Your task to perform on an android device: stop showing notifications on the lock screen Image 0: 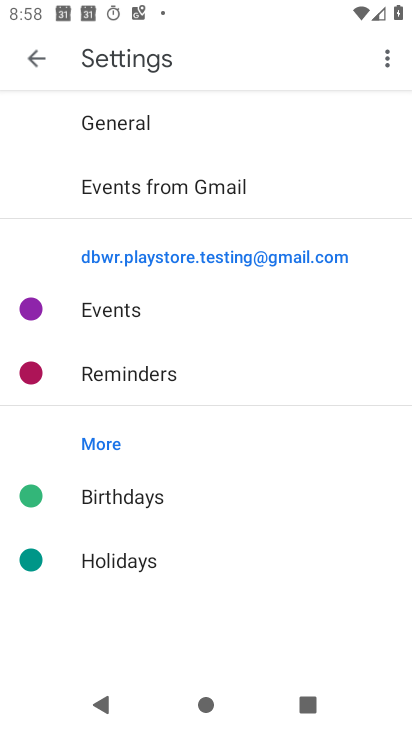
Step 0: press home button
Your task to perform on an android device: stop showing notifications on the lock screen Image 1: 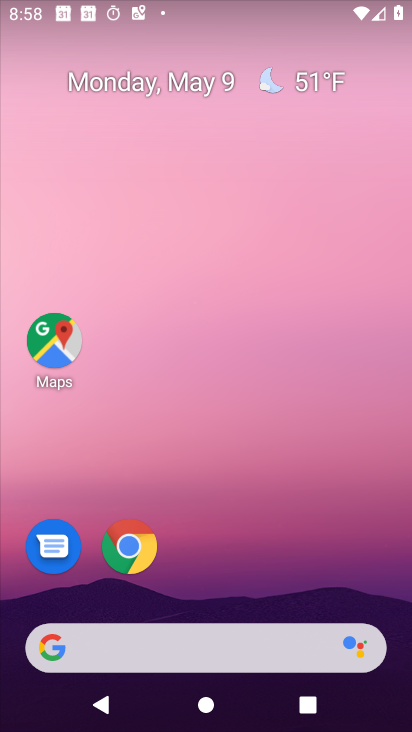
Step 1: drag from (295, 573) to (266, 67)
Your task to perform on an android device: stop showing notifications on the lock screen Image 2: 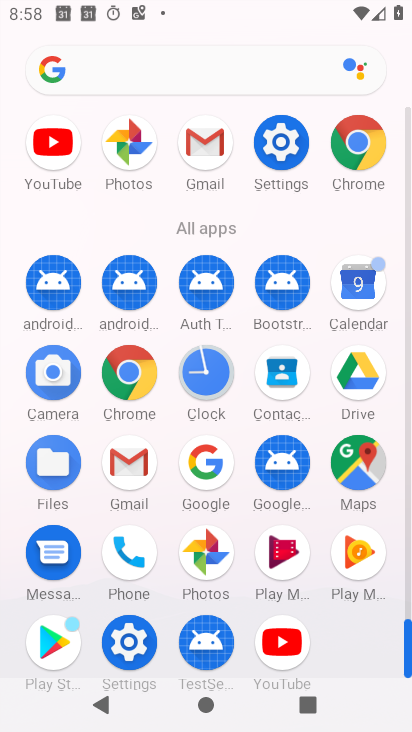
Step 2: click (141, 636)
Your task to perform on an android device: stop showing notifications on the lock screen Image 3: 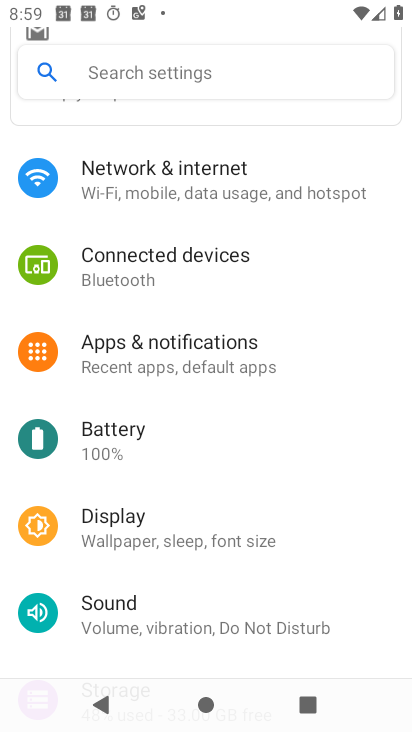
Step 3: click (162, 347)
Your task to perform on an android device: stop showing notifications on the lock screen Image 4: 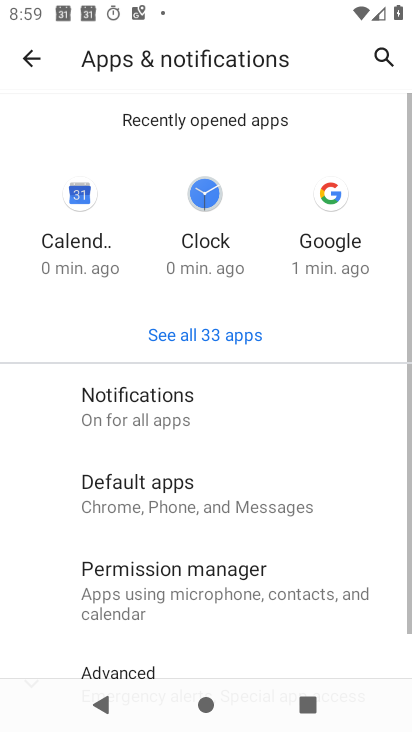
Step 4: click (99, 400)
Your task to perform on an android device: stop showing notifications on the lock screen Image 5: 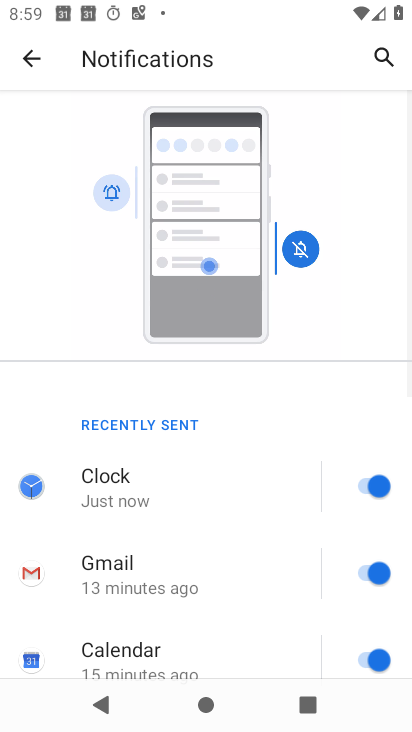
Step 5: drag from (254, 575) to (297, 230)
Your task to perform on an android device: stop showing notifications on the lock screen Image 6: 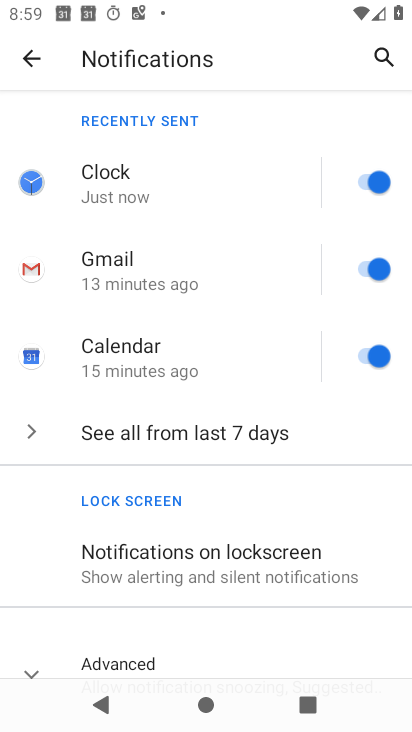
Step 6: click (222, 560)
Your task to perform on an android device: stop showing notifications on the lock screen Image 7: 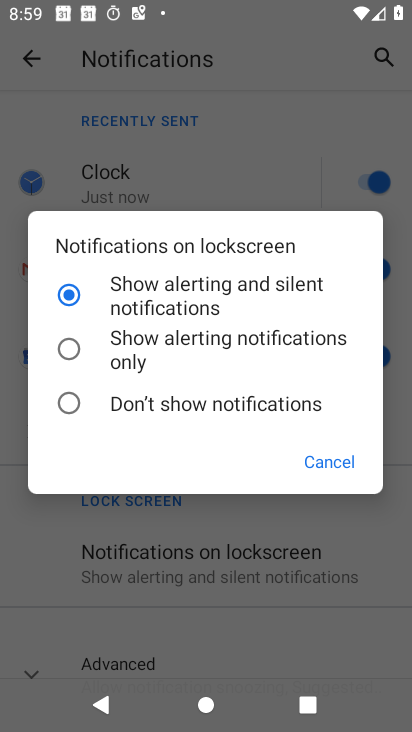
Step 7: click (122, 397)
Your task to perform on an android device: stop showing notifications on the lock screen Image 8: 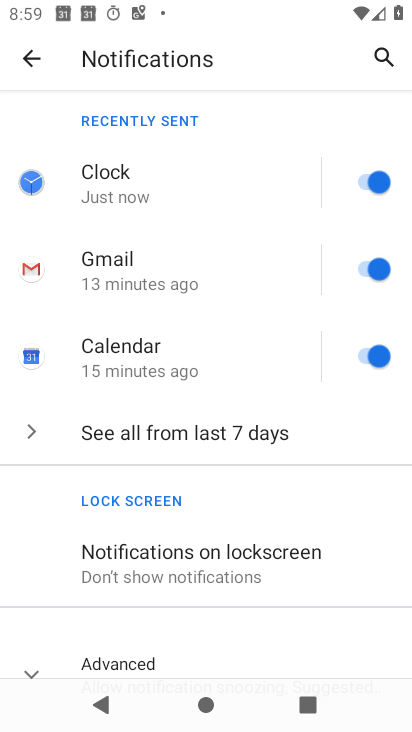
Step 8: task complete